Your task to perform on an android device: Search for sushi restaurants on Maps Image 0: 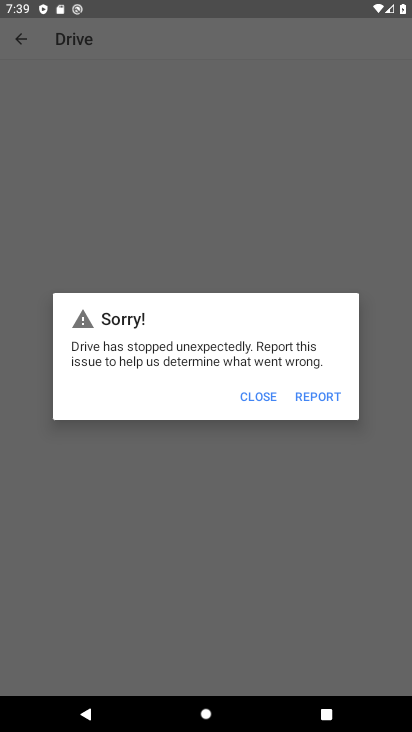
Step 0: press home button
Your task to perform on an android device: Search for sushi restaurants on Maps Image 1: 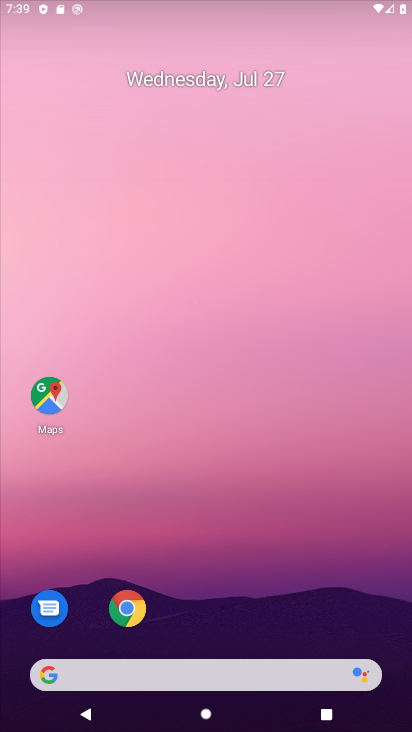
Step 1: drag from (326, 582) to (345, 206)
Your task to perform on an android device: Search for sushi restaurants on Maps Image 2: 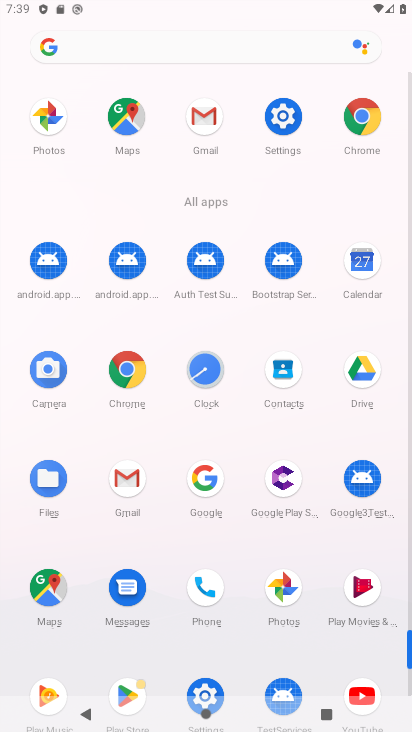
Step 2: click (282, 120)
Your task to perform on an android device: Search for sushi restaurants on Maps Image 3: 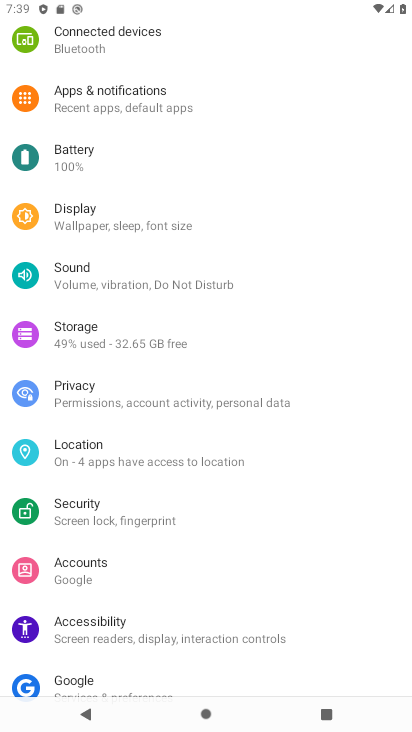
Step 3: click (74, 267)
Your task to perform on an android device: Search for sushi restaurants on Maps Image 4: 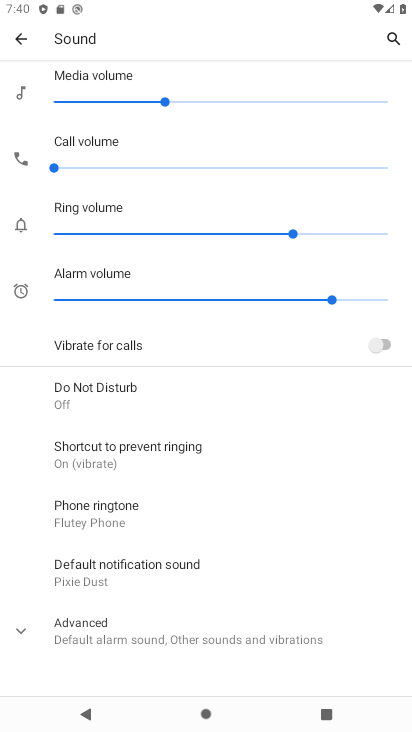
Step 4: task complete